Your task to perform on an android device: turn off notifications in google photos Image 0: 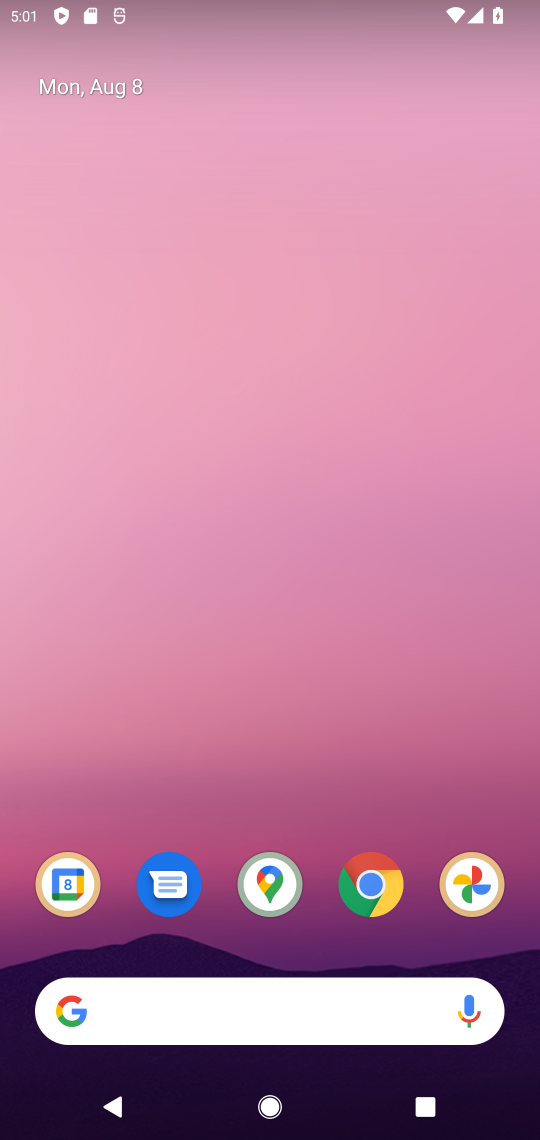
Step 0: drag from (323, 835) to (250, 278)
Your task to perform on an android device: turn off notifications in google photos Image 1: 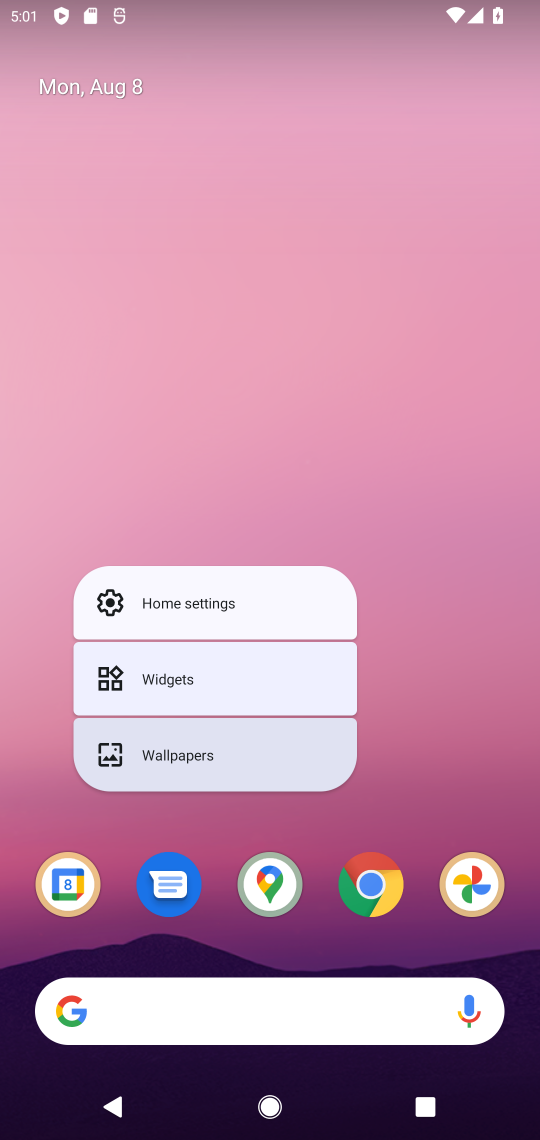
Step 1: click (486, 883)
Your task to perform on an android device: turn off notifications in google photos Image 2: 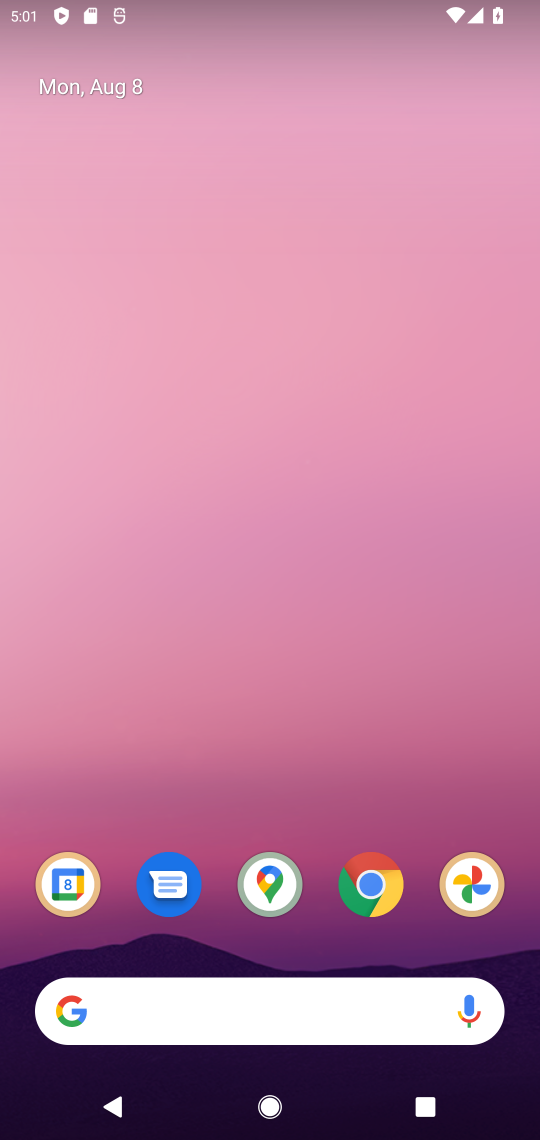
Step 2: click (477, 885)
Your task to perform on an android device: turn off notifications in google photos Image 3: 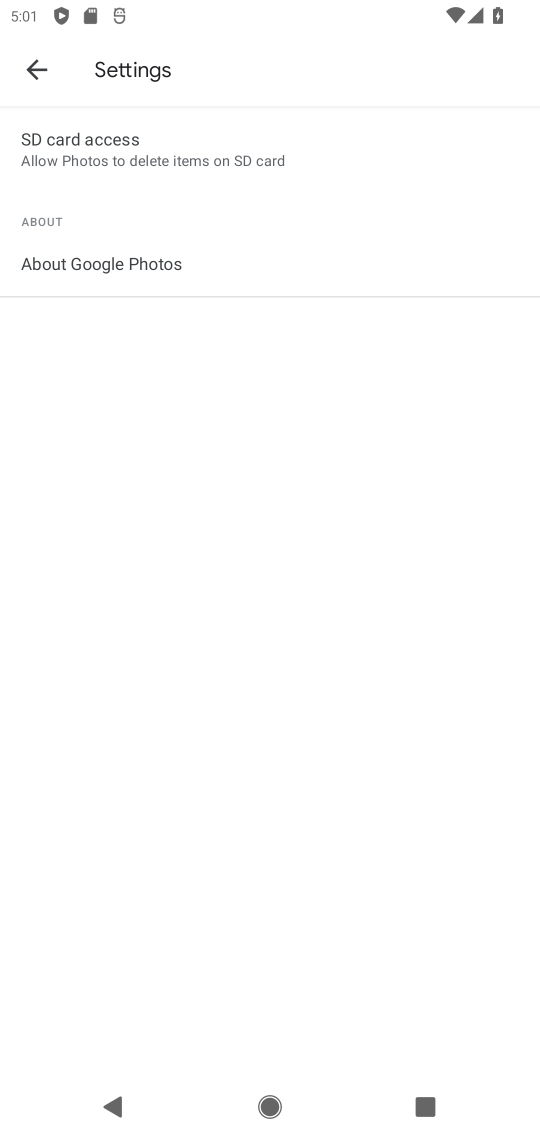
Step 3: click (39, 79)
Your task to perform on an android device: turn off notifications in google photos Image 4: 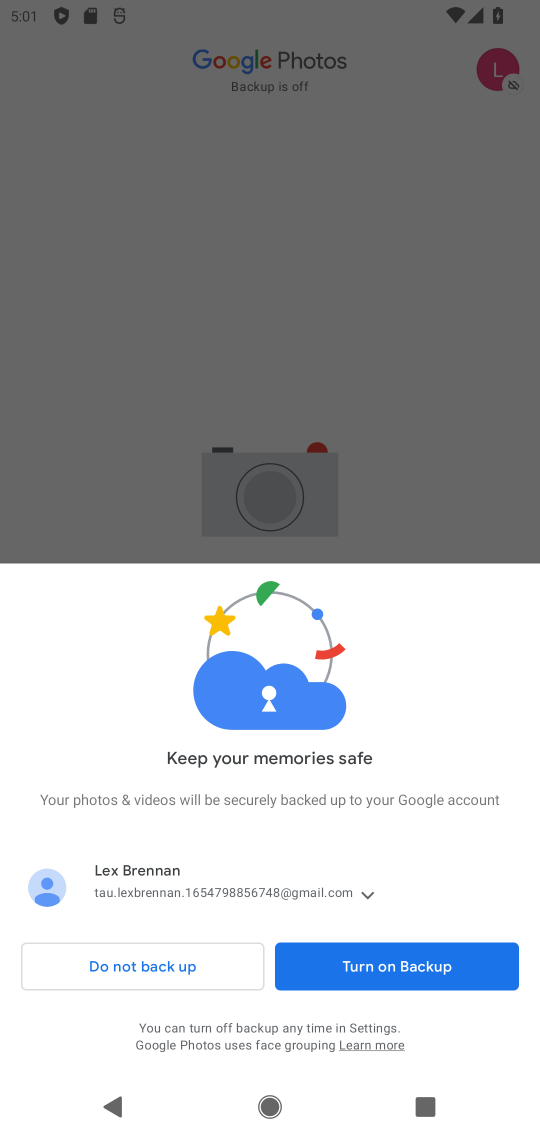
Step 4: click (384, 978)
Your task to perform on an android device: turn off notifications in google photos Image 5: 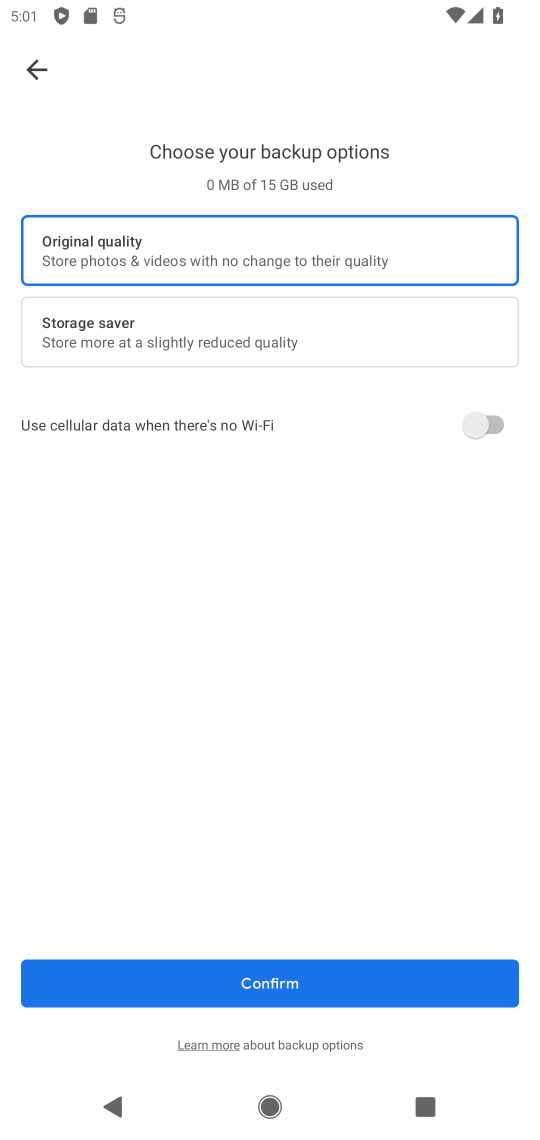
Step 5: click (388, 972)
Your task to perform on an android device: turn off notifications in google photos Image 6: 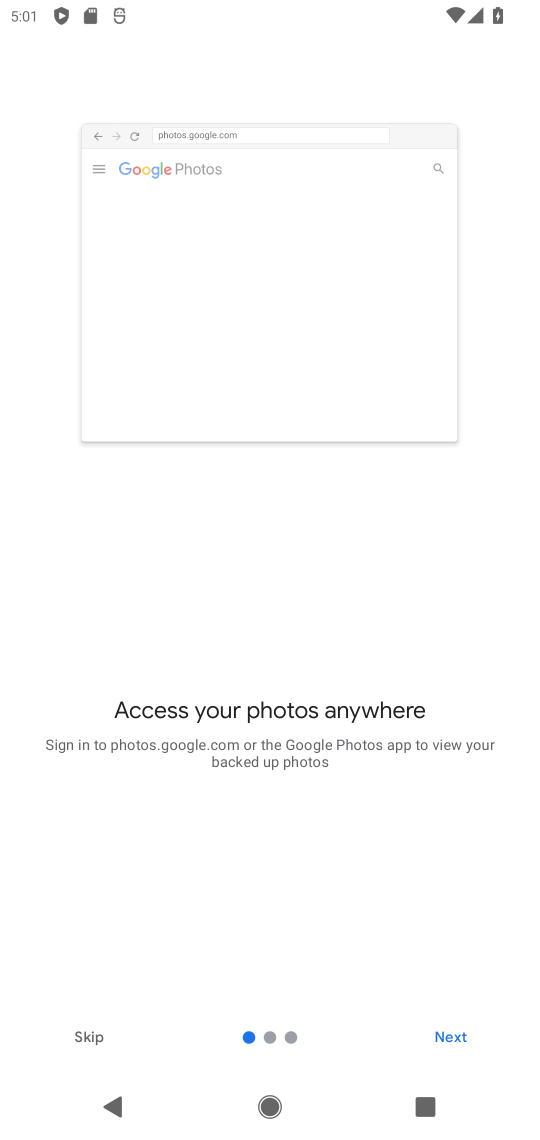
Step 6: click (94, 1030)
Your task to perform on an android device: turn off notifications in google photos Image 7: 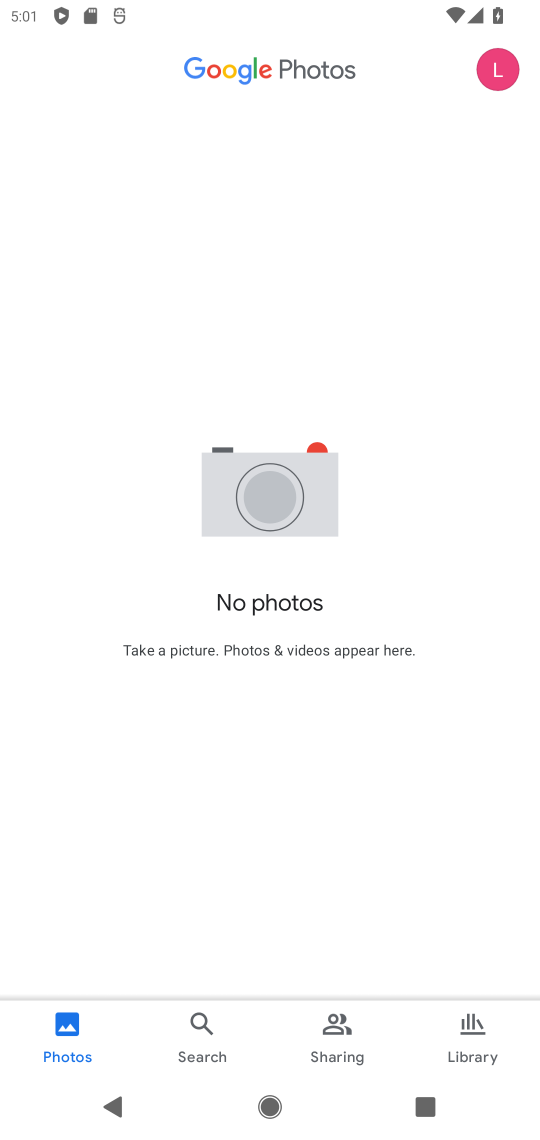
Step 7: click (493, 83)
Your task to perform on an android device: turn off notifications in google photos Image 8: 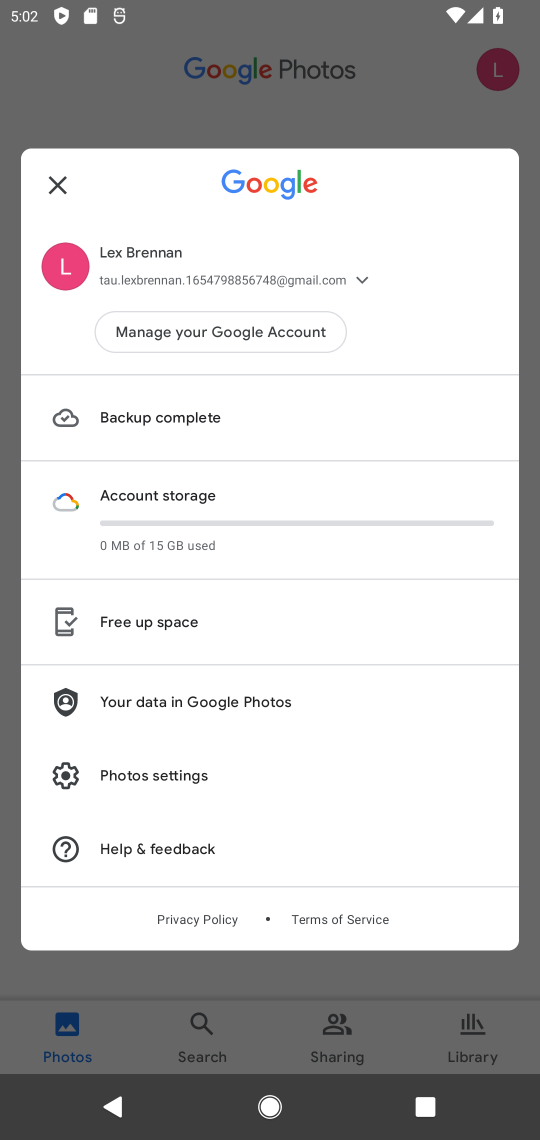
Step 8: click (250, 775)
Your task to perform on an android device: turn off notifications in google photos Image 9: 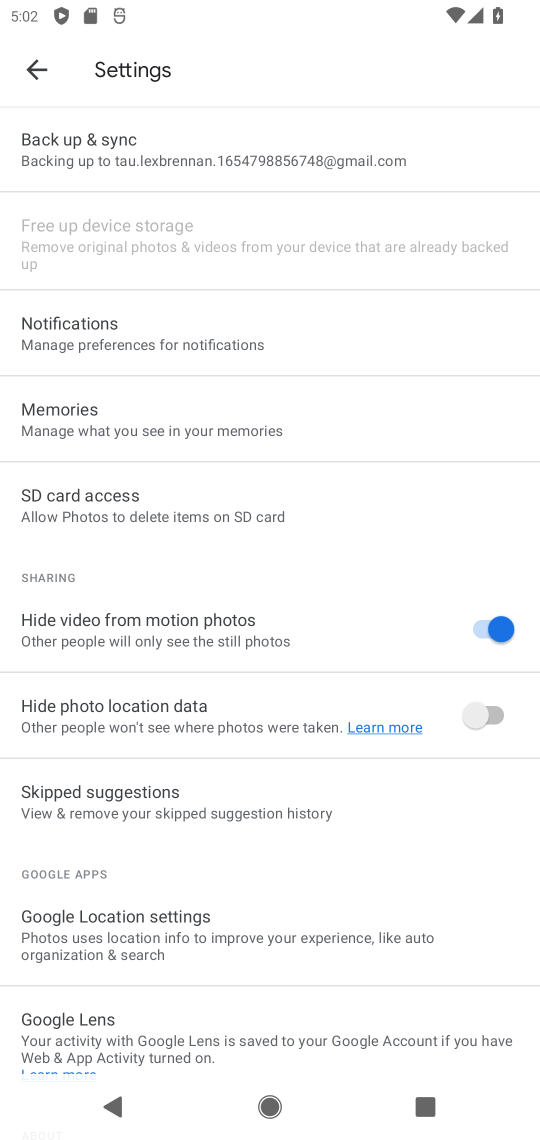
Step 9: click (228, 346)
Your task to perform on an android device: turn off notifications in google photos Image 10: 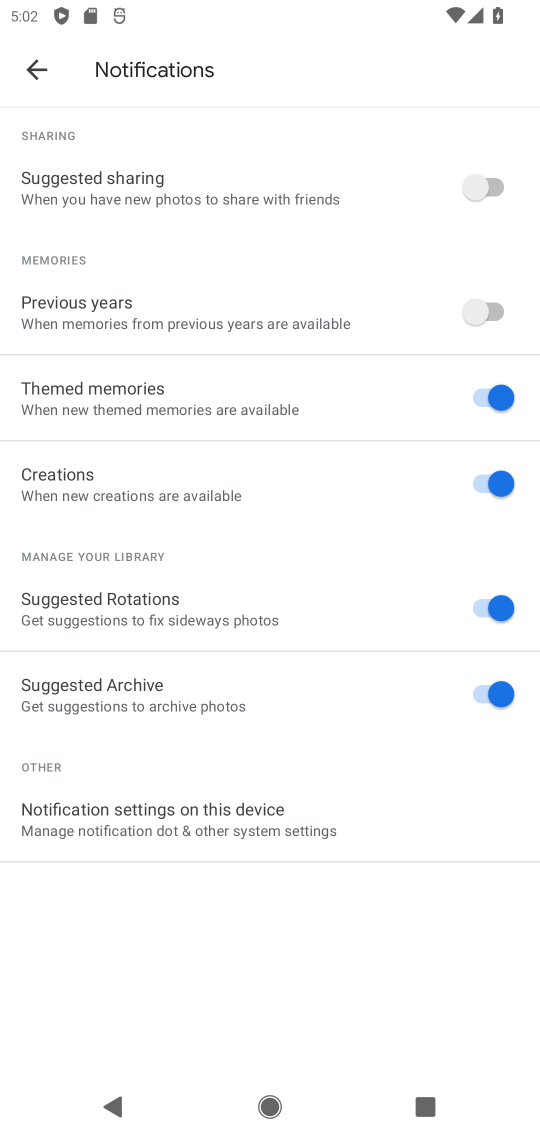
Step 10: click (332, 835)
Your task to perform on an android device: turn off notifications in google photos Image 11: 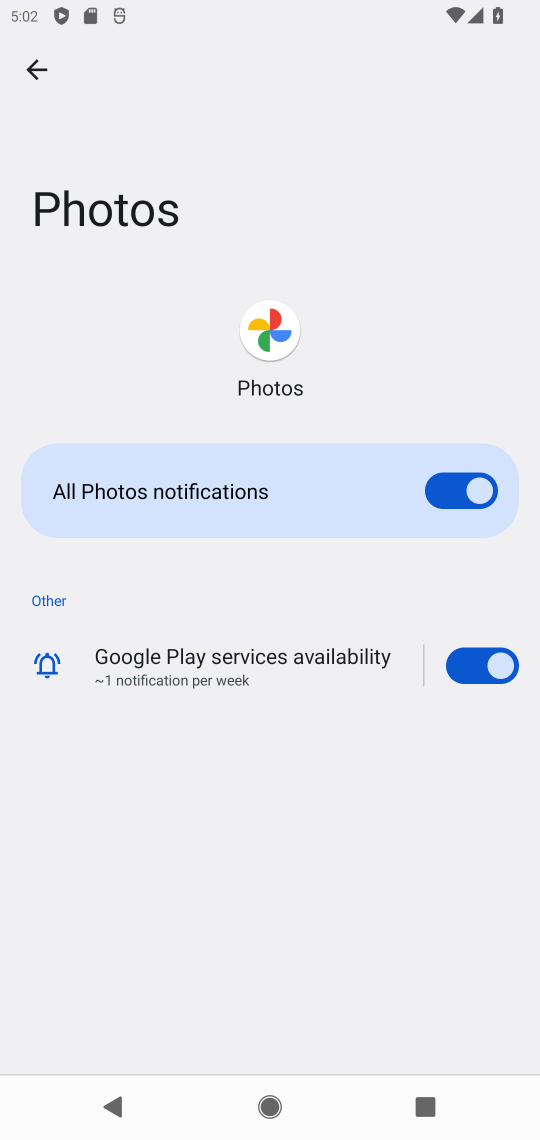
Step 11: click (455, 487)
Your task to perform on an android device: turn off notifications in google photos Image 12: 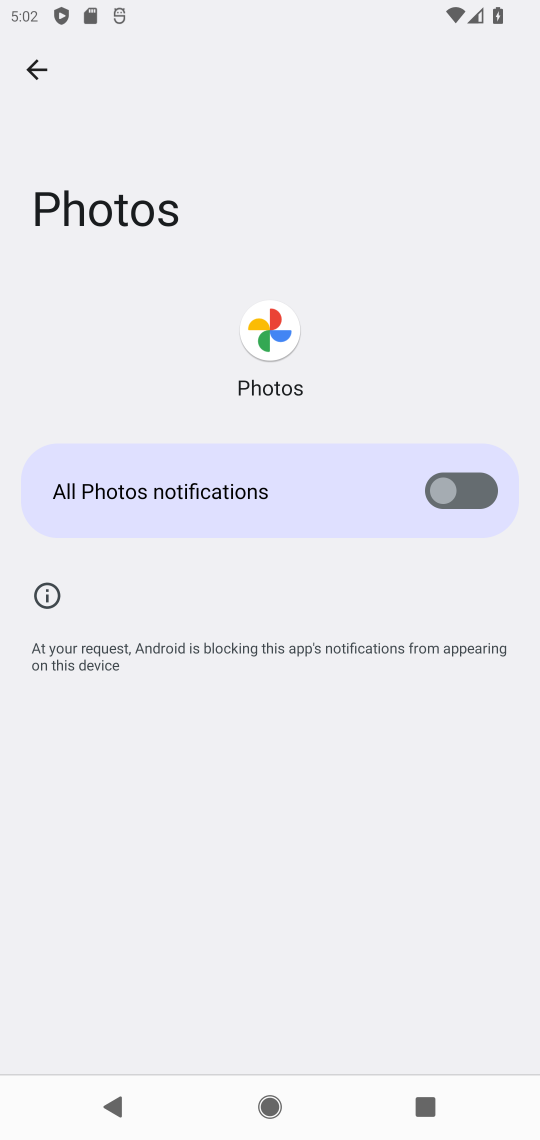
Step 12: task complete